Your task to perform on an android device: turn on javascript in the chrome app Image 0: 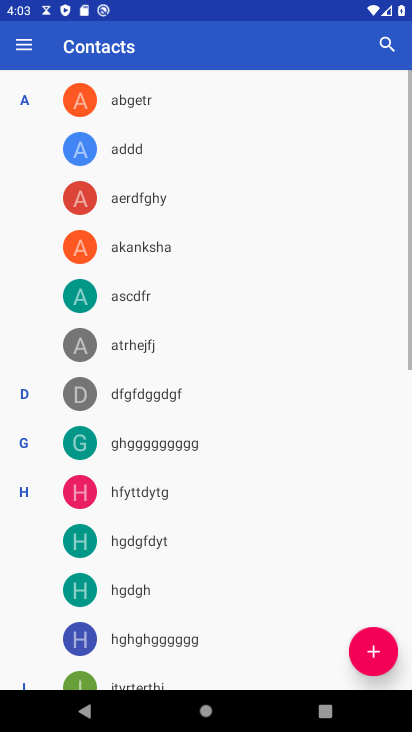
Step 0: press home button
Your task to perform on an android device: turn on javascript in the chrome app Image 1: 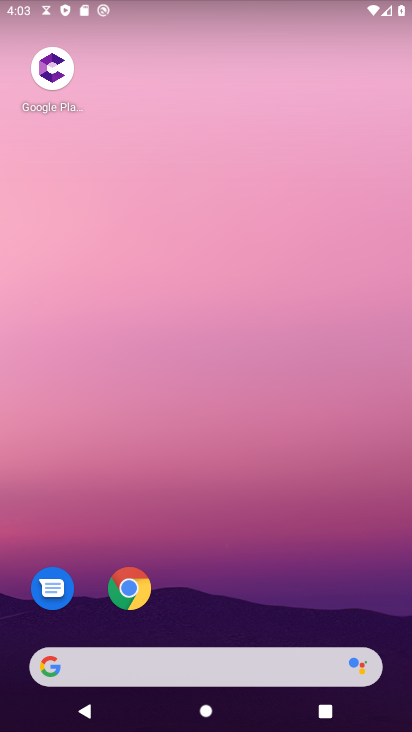
Step 1: drag from (76, 567) to (110, 358)
Your task to perform on an android device: turn on javascript in the chrome app Image 2: 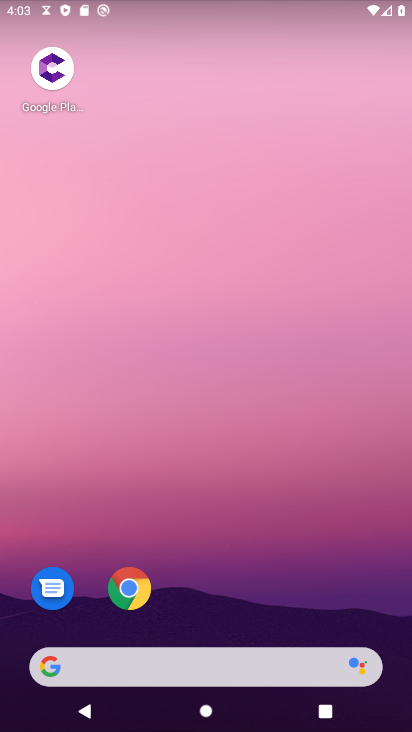
Step 2: click (117, 577)
Your task to perform on an android device: turn on javascript in the chrome app Image 3: 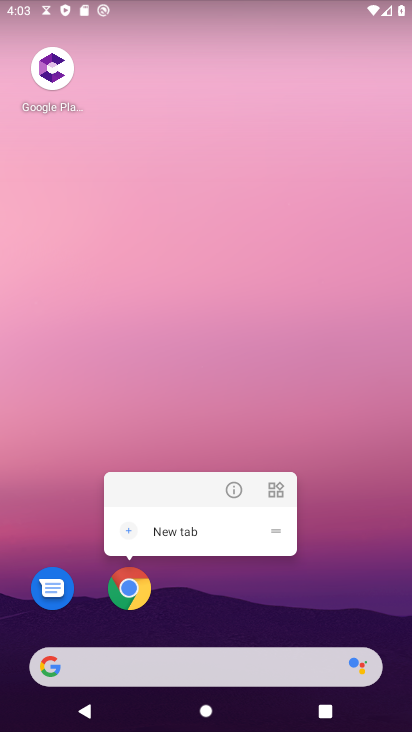
Step 3: click (133, 575)
Your task to perform on an android device: turn on javascript in the chrome app Image 4: 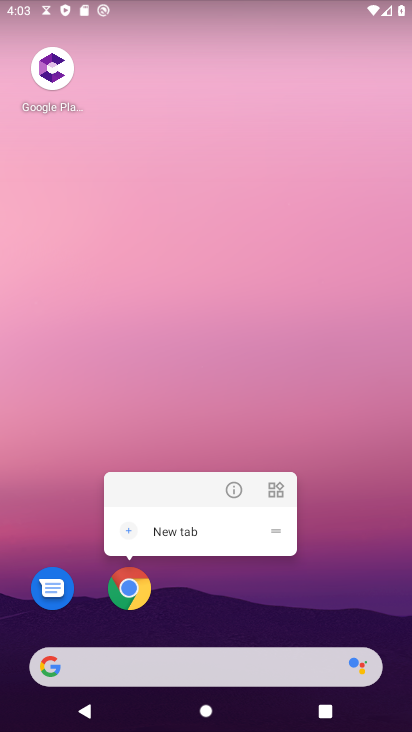
Step 4: click (144, 600)
Your task to perform on an android device: turn on javascript in the chrome app Image 5: 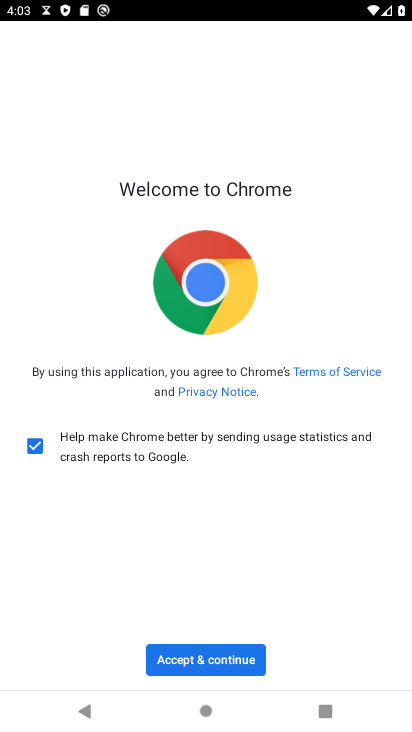
Step 5: click (186, 642)
Your task to perform on an android device: turn on javascript in the chrome app Image 6: 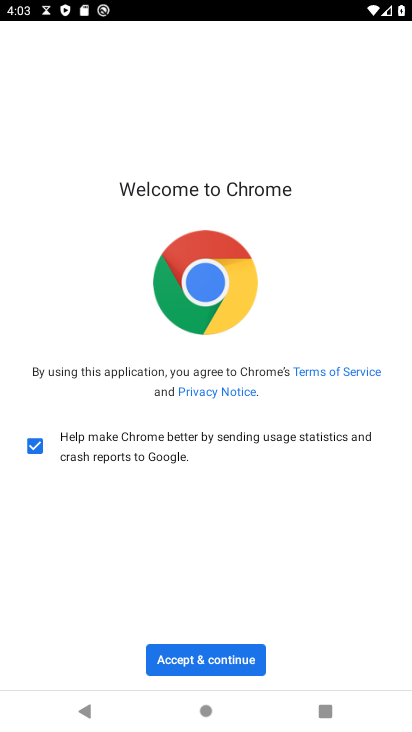
Step 6: click (219, 649)
Your task to perform on an android device: turn on javascript in the chrome app Image 7: 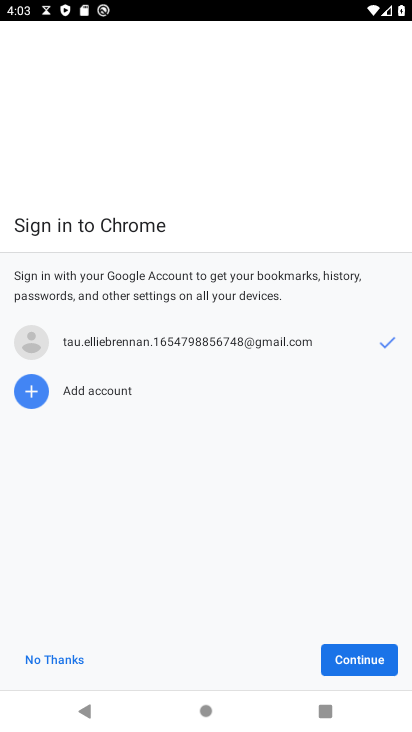
Step 7: click (326, 652)
Your task to perform on an android device: turn on javascript in the chrome app Image 8: 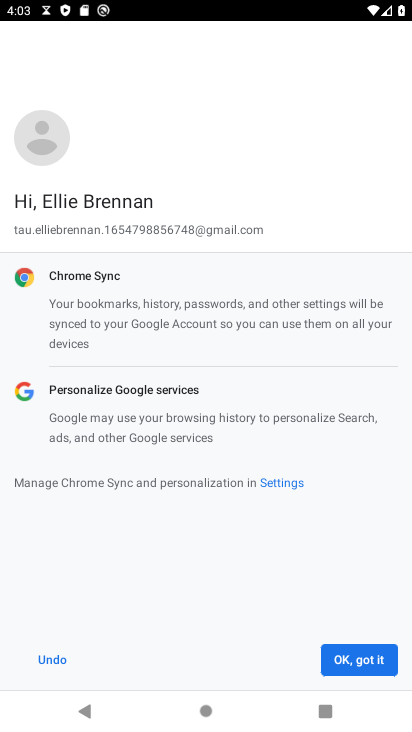
Step 8: click (347, 656)
Your task to perform on an android device: turn on javascript in the chrome app Image 9: 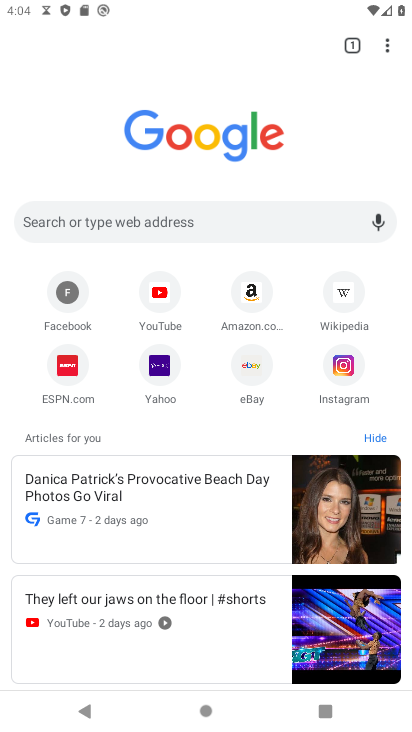
Step 9: click (397, 40)
Your task to perform on an android device: turn on javascript in the chrome app Image 10: 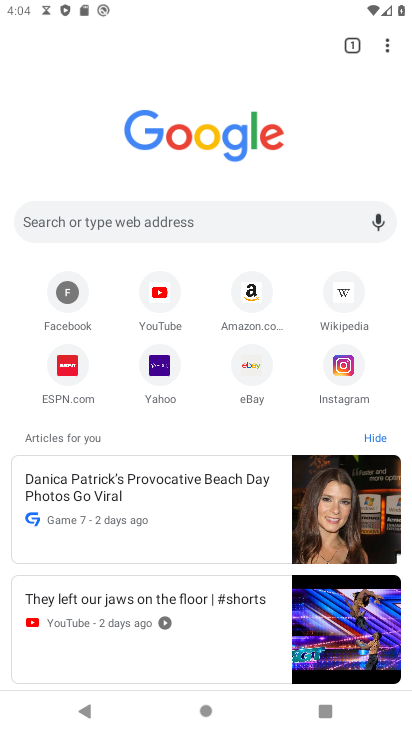
Step 10: click (387, 36)
Your task to perform on an android device: turn on javascript in the chrome app Image 11: 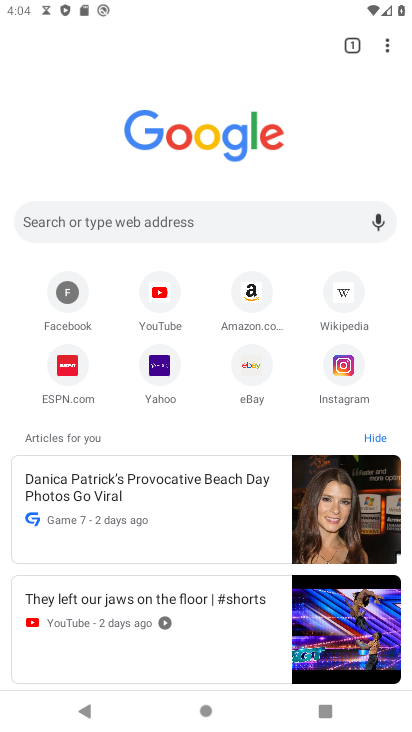
Step 11: click (390, 48)
Your task to perform on an android device: turn on javascript in the chrome app Image 12: 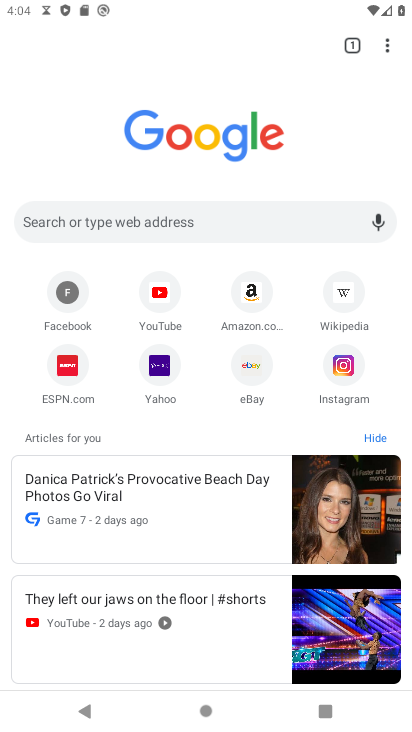
Step 12: click (391, 44)
Your task to perform on an android device: turn on javascript in the chrome app Image 13: 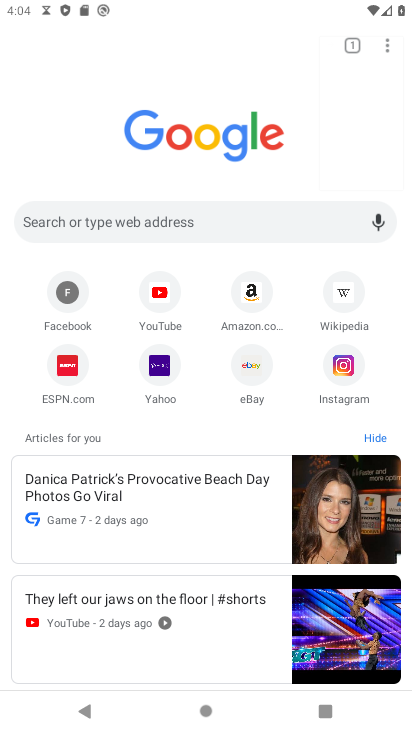
Step 13: click (391, 44)
Your task to perform on an android device: turn on javascript in the chrome app Image 14: 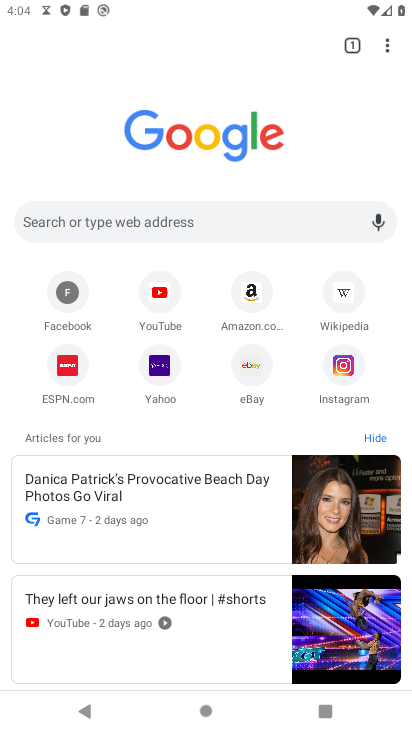
Step 14: click (389, 42)
Your task to perform on an android device: turn on javascript in the chrome app Image 15: 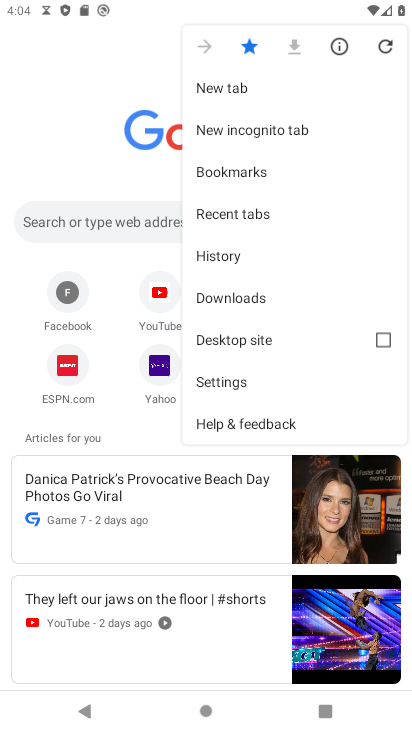
Step 15: click (213, 383)
Your task to perform on an android device: turn on javascript in the chrome app Image 16: 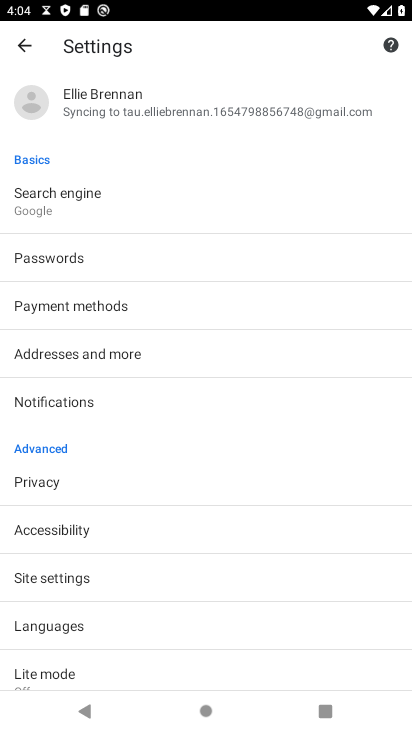
Step 16: drag from (160, 603) to (172, 319)
Your task to perform on an android device: turn on javascript in the chrome app Image 17: 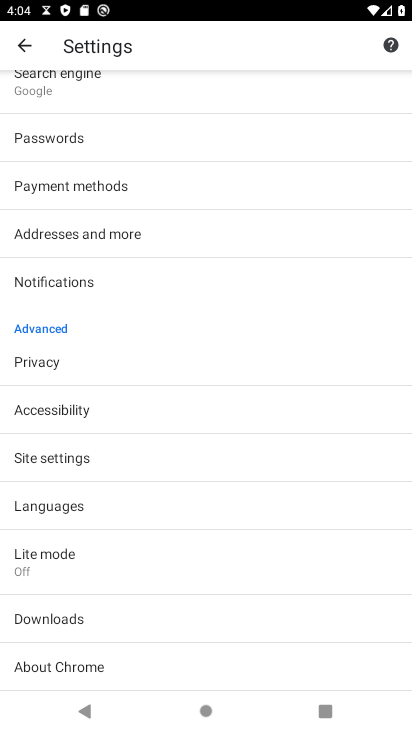
Step 17: drag from (165, 613) to (205, 395)
Your task to perform on an android device: turn on javascript in the chrome app Image 18: 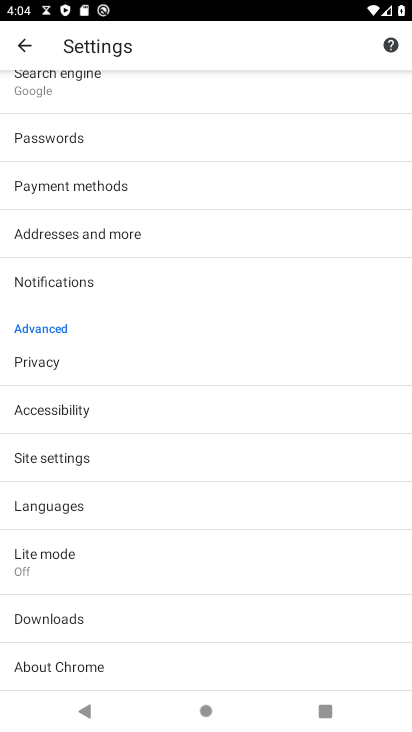
Step 18: click (64, 469)
Your task to perform on an android device: turn on javascript in the chrome app Image 19: 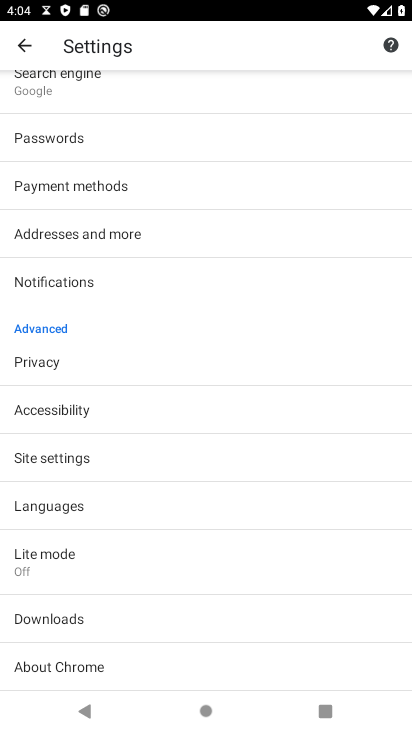
Step 19: click (59, 442)
Your task to perform on an android device: turn on javascript in the chrome app Image 20: 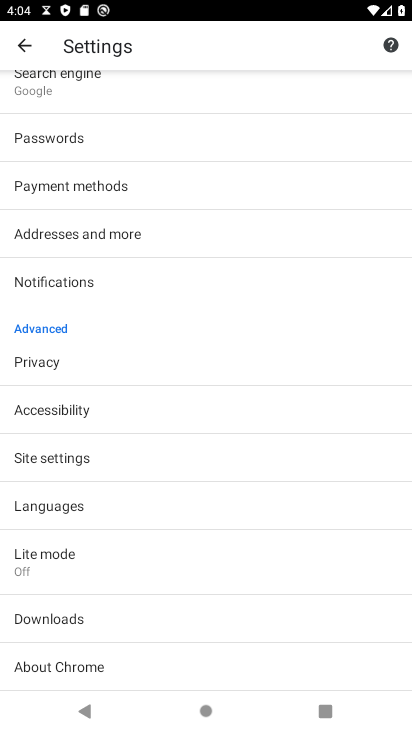
Step 20: click (60, 451)
Your task to perform on an android device: turn on javascript in the chrome app Image 21: 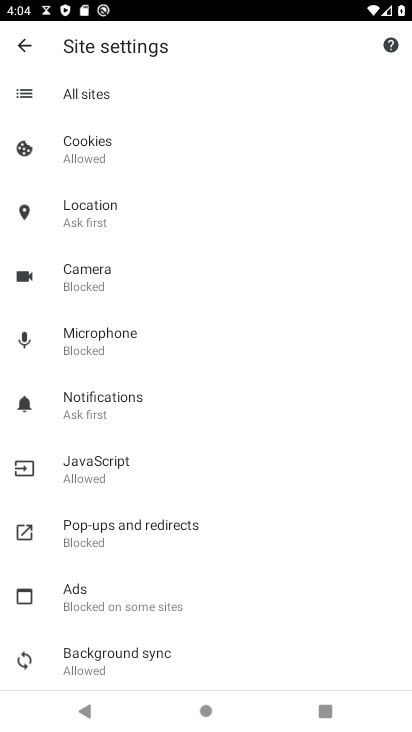
Step 21: click (95, 482)
Your task to perform on an android device: turn on javascript in the chrome app Image 22: 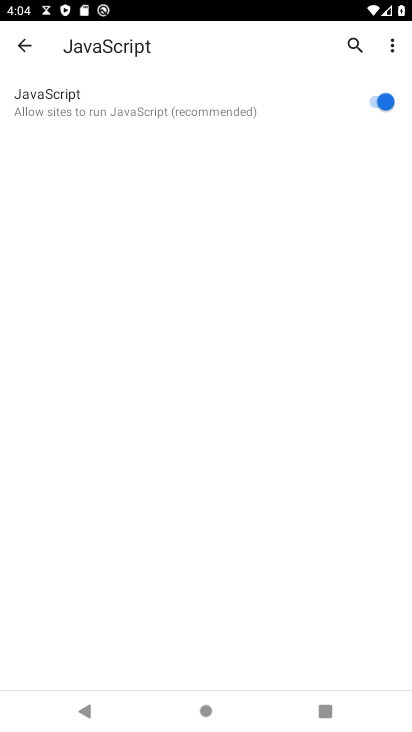
Step 22: task complete